Your task to perform on an android device: find which apps use the phone's location Image 0: 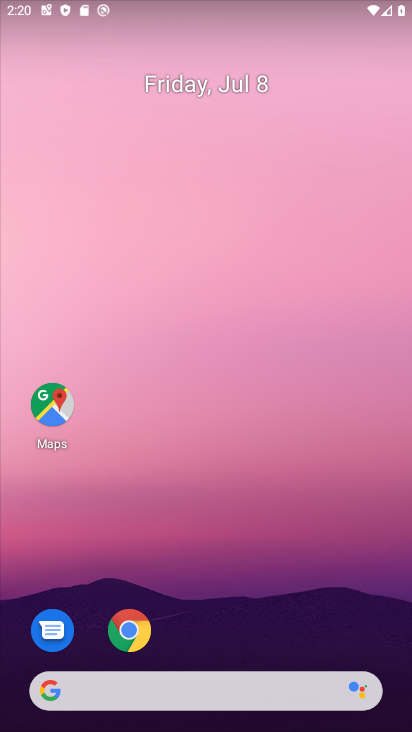
Step 0: drag from (352, 620) to (291, 186)
Your task to perform on an android device: find which apps use the phone's location Image 1: 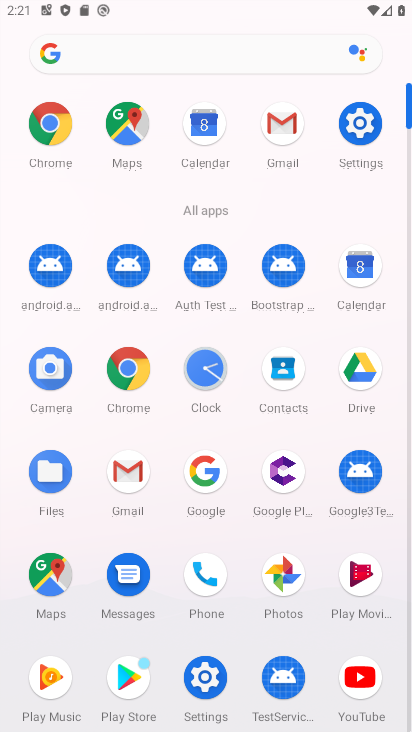
Step 1: click (383, 121)
Your task to perform on an android device: find which apps use the phone's location Image 2: 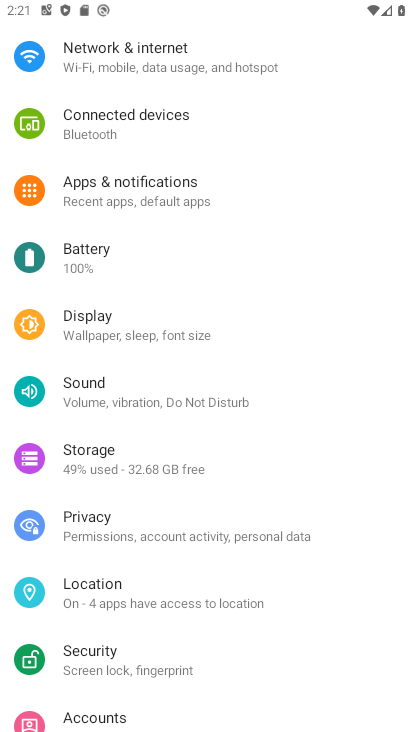
Step 2: click (154, 598)
Your task to perform on an android device: find which apps use the phone's location Image 3: 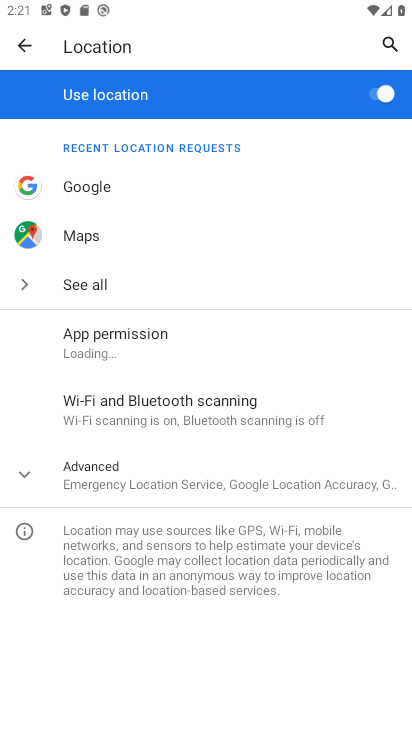
Step 3: task complete